Your task to perform on an android device: Open Google Maps Image 0: 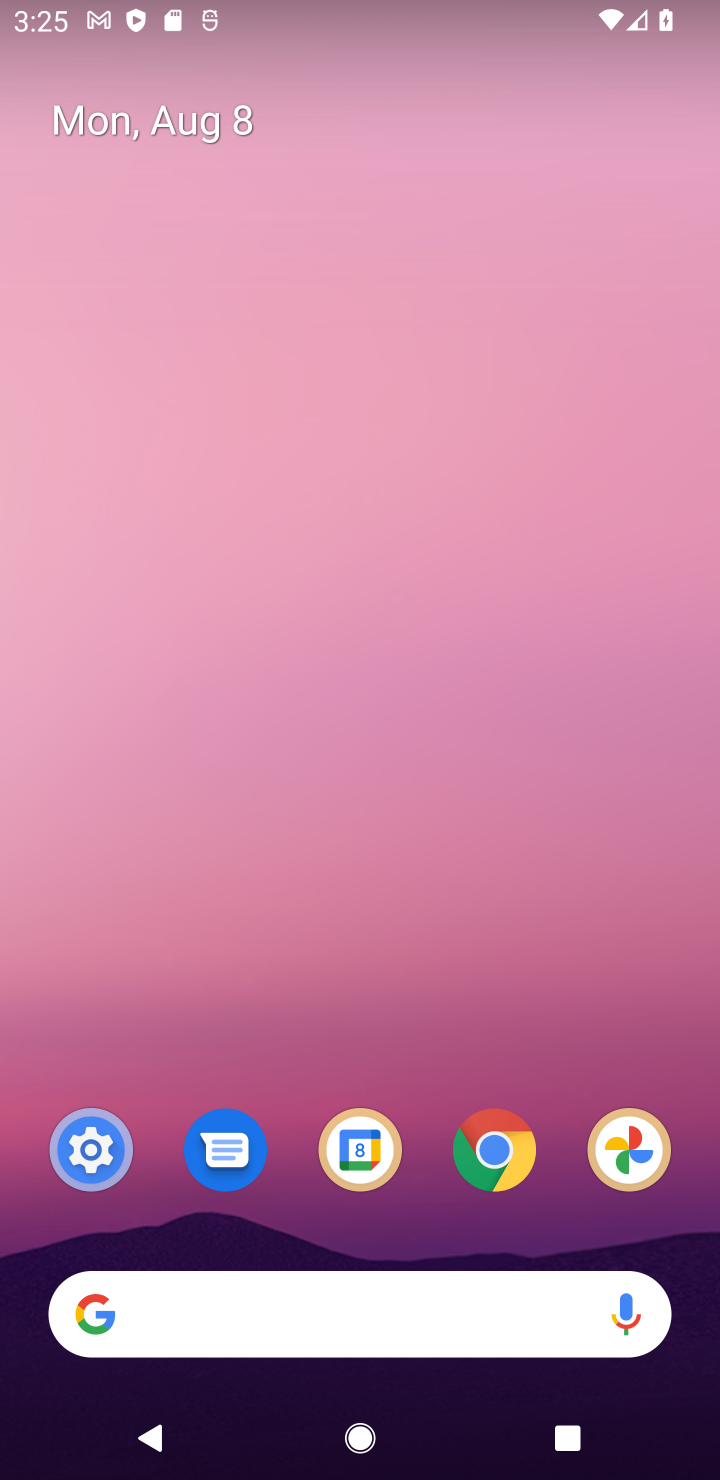
Step 0: click (633, 1171)
Your task to perform on an android device: Open Google Maps Image 1: 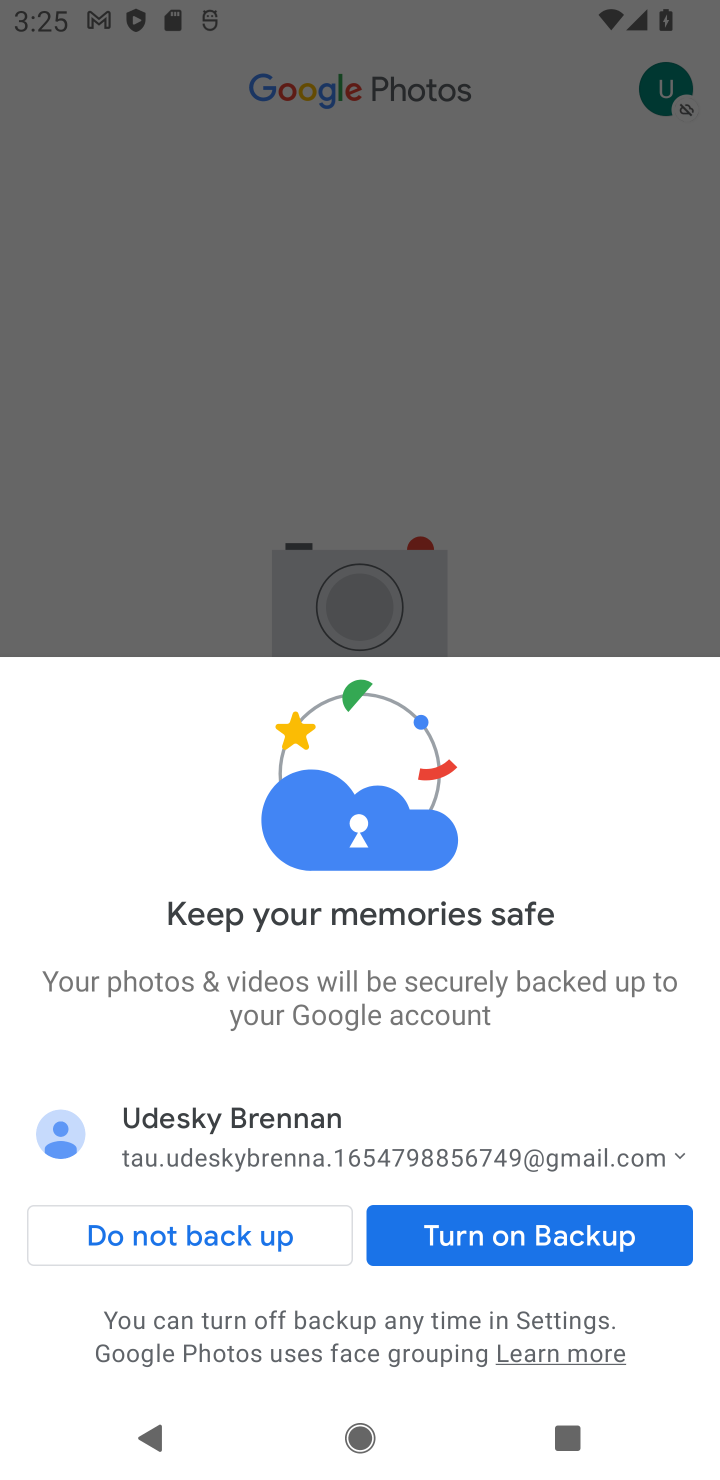
Step 1: press home button
Your task to perform on an android device: Open Google Maps Image 2: 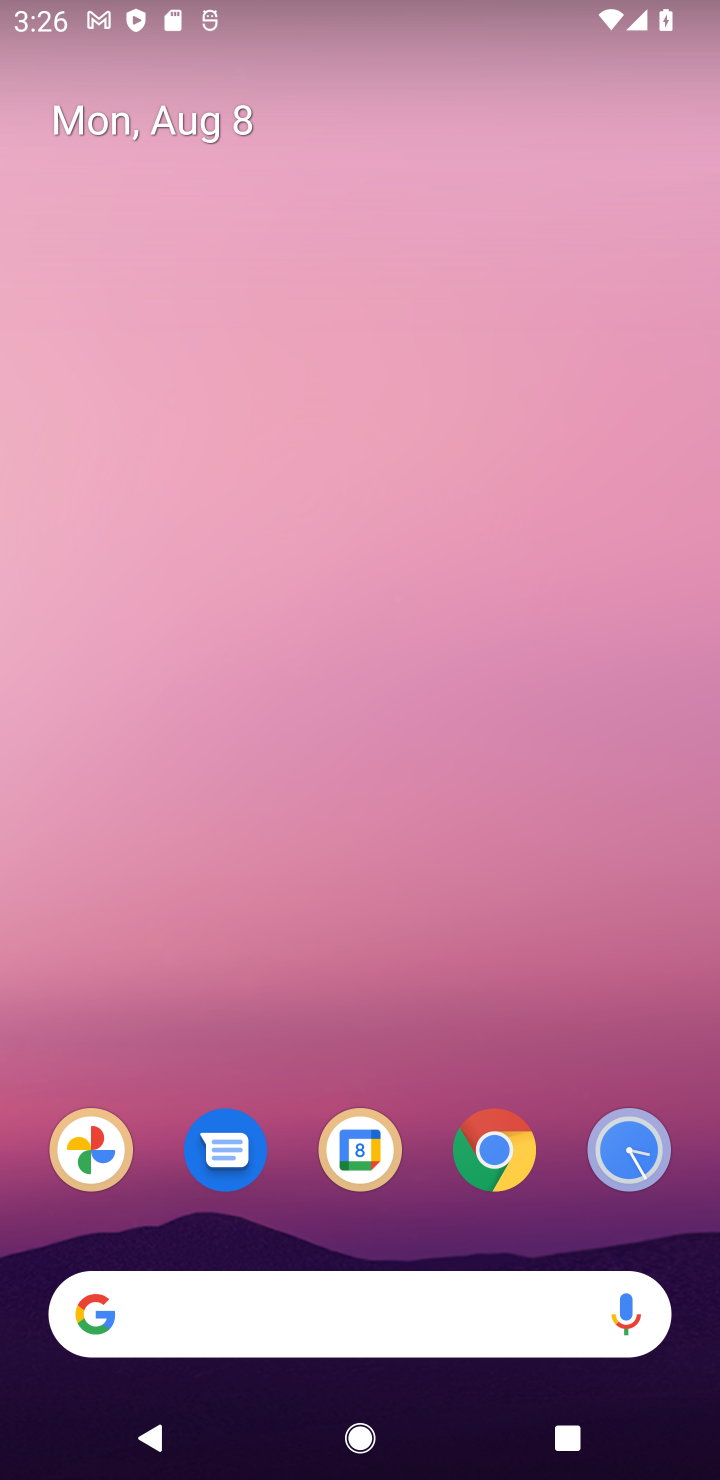
Step 2: drag from (441, 1207) to (384, 82)
Your task to perform on an android device: Open Google Maps Image 3: 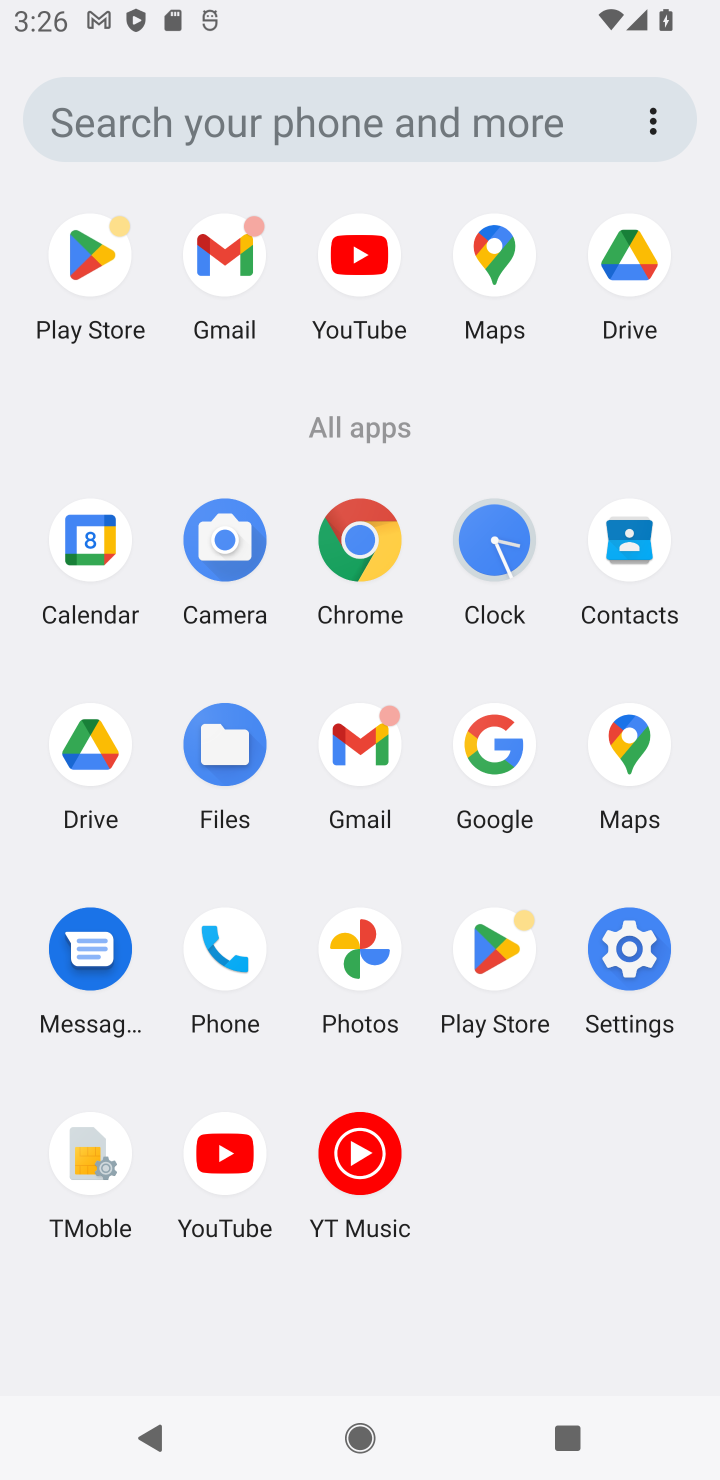
Step 3: click (521, 267)
Your task to perform on an android device: Open Google Maps Image 4: 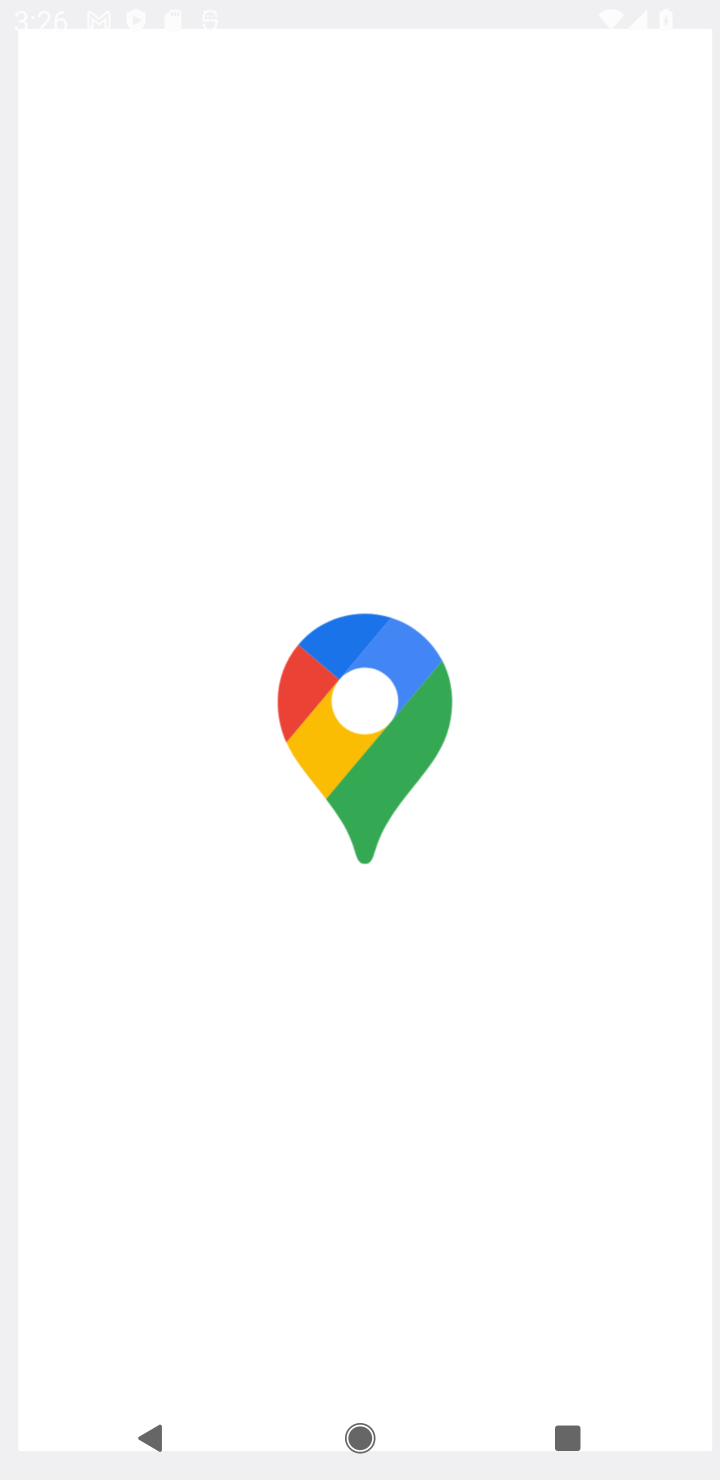
Step 4: task complete